Your task to perform on an android device: turn off improve location accuracy Image 0: 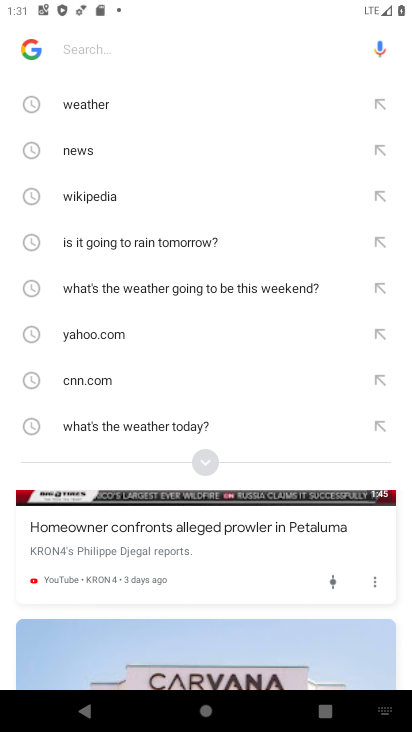
Step 0: press home button
Your task to perform on an android device: turn off improve location accuracy Image 1: 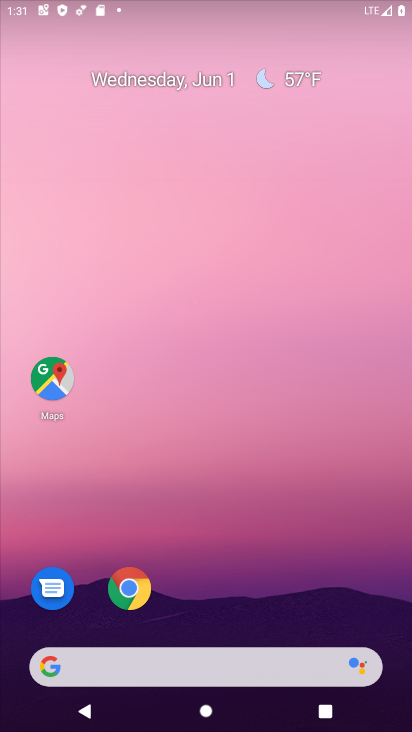
Step 1: drag from (334, 351) to (209, 34)
Your task to perform on an android device: turn off improve location accuracy Image 2: 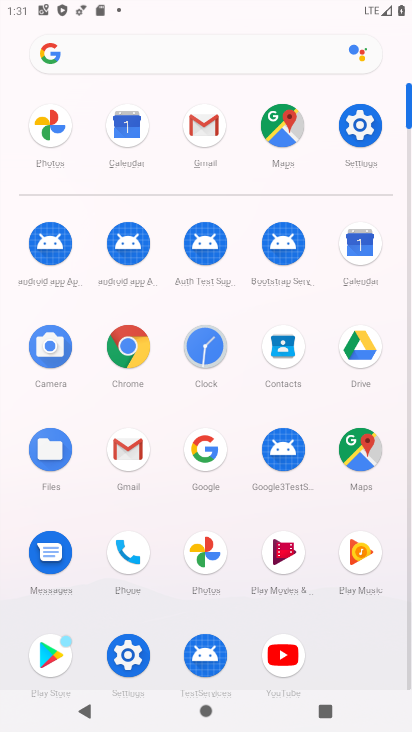
Step 2: click (359, 126)
Your task to perform on an android device: turn off improve location accuracy Image 3: 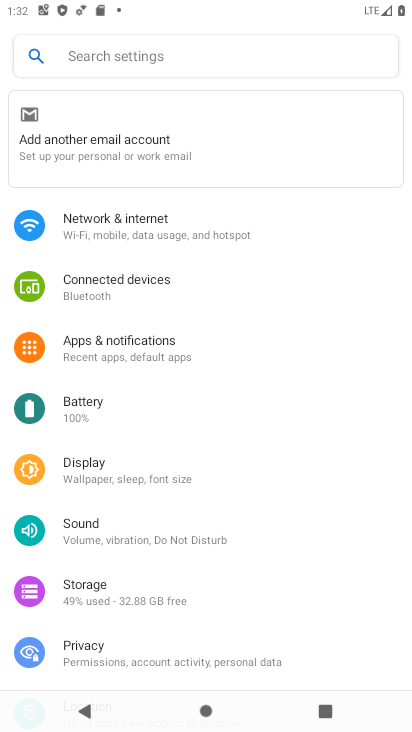
Step 3: drag from (192, 608) to (160, 179)
Your task to perform on an android device: turn off improve location accuracy Image 4: 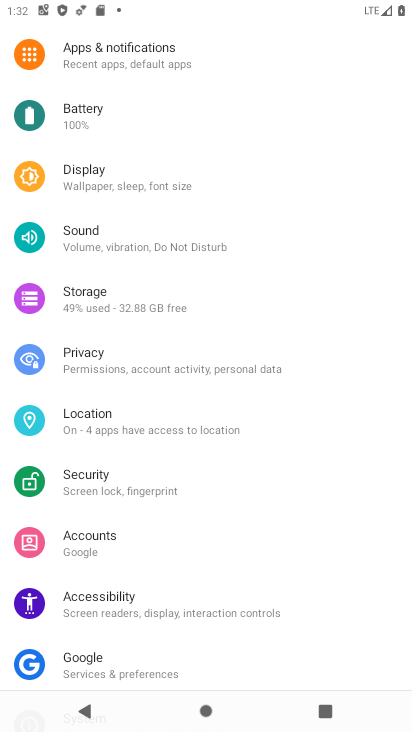
Step 4: click (135, 402)
Your task to perform on an android device: turn off improve location accuracy Image 5: 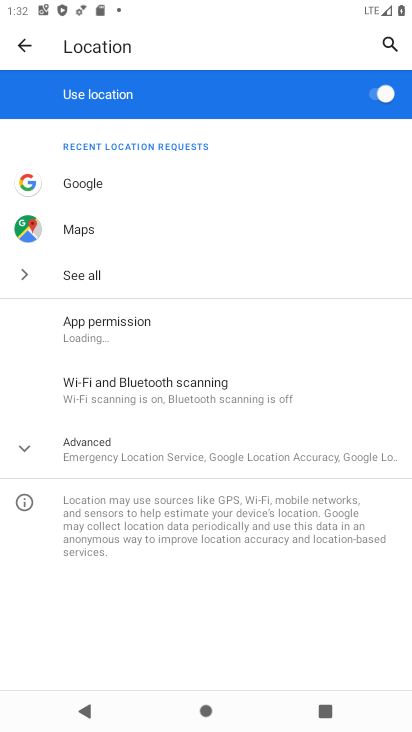
Step 5: click (196, 453)
Your task to perform on an android device: turn off improve location accuracy Image 6: 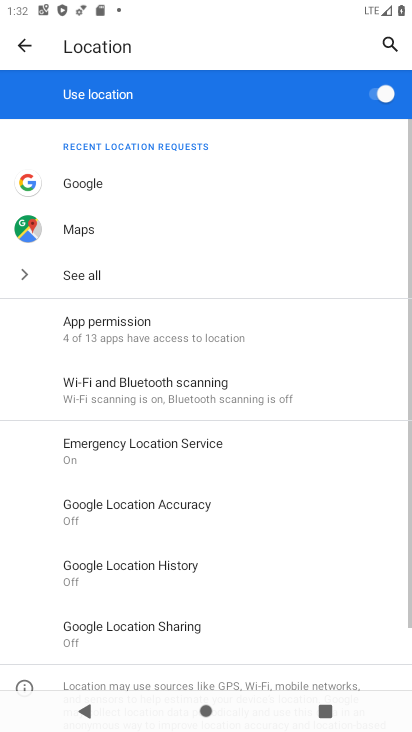
Step 6: click (233, 504)
Your task to perform on an android device: turn off improve location accuracy Image 7: 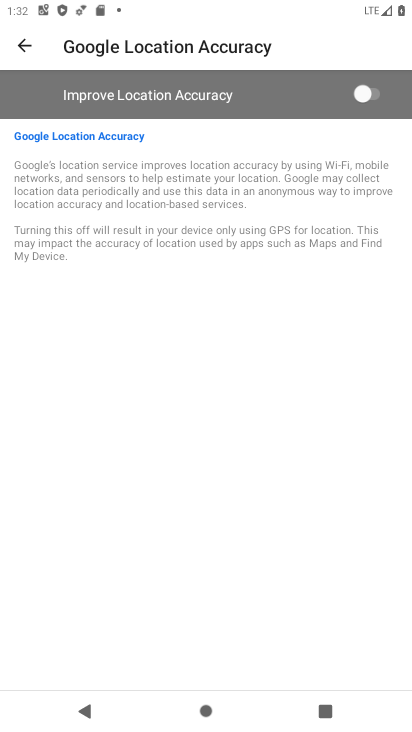
Step 7: task complete